Your task to perform on an android device: make emails show in primary in the gmail app Image 0: 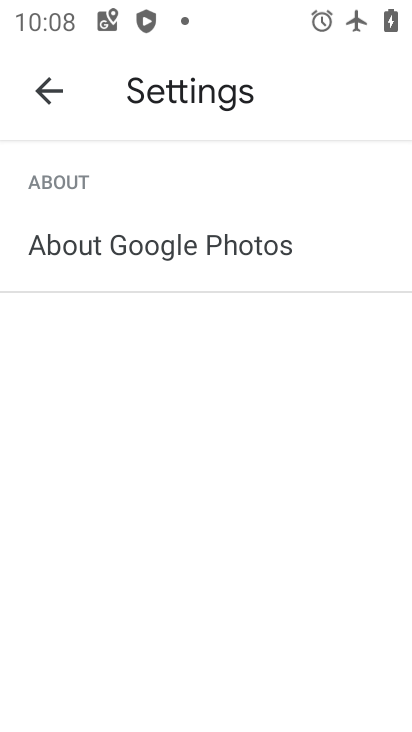
Step 0: press home button
Your task to perform on an android device: make emails show in primary in the gmail app Image 1: 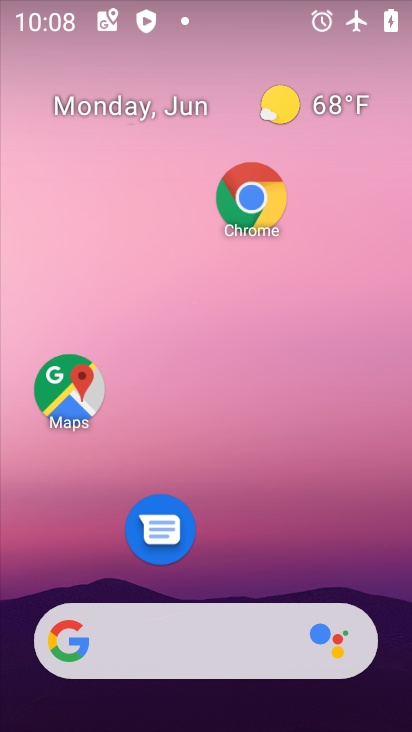
Step 1: drag from (231, 560) to (208, 140)
Your task to perform on an android device: make emails show in primary in the gmail app Image 2: 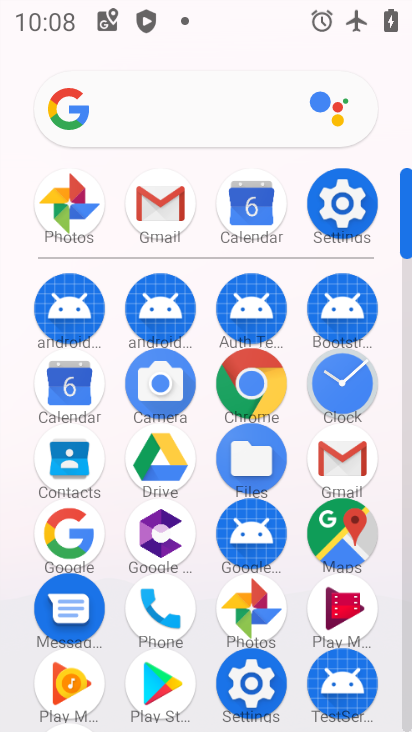
Step 2: click (164, 213)
Your task to perform on an android device: make emails show in primary in the gmail app Image 3: 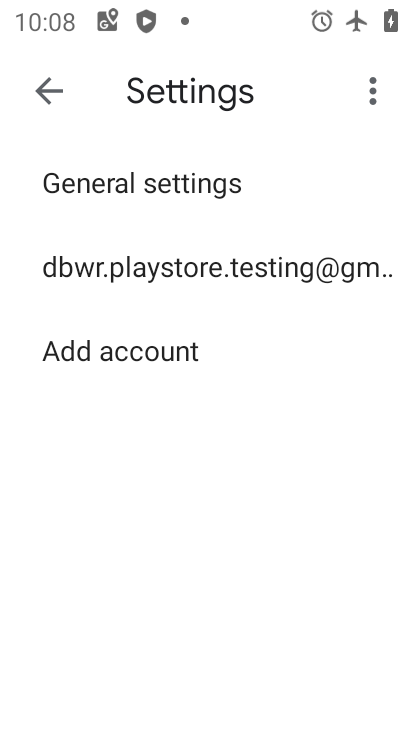
Step 3: click (187, 274)
Your task to perform on an android device: make emails show in primary in the gmail app Image 4: 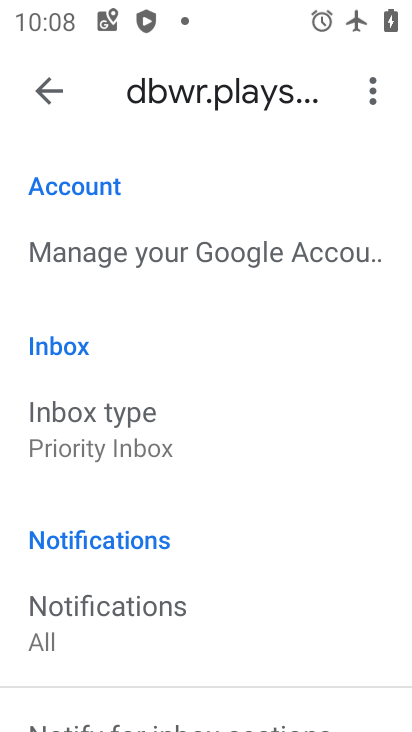
Step 4: click (131, 438)
Your task to perform on an android device: make emails show in primary in the gmail app Image 5: 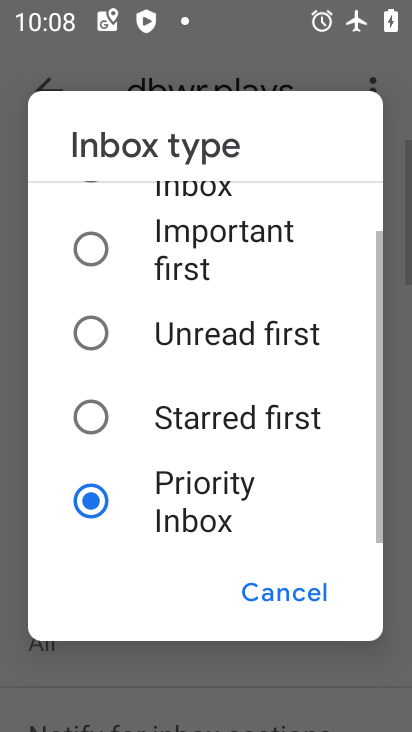
Step 5: drag from (178, 228) to (178, 505)
Your task to perform on an android device: make emails show in primary in the gmail app Image 6: 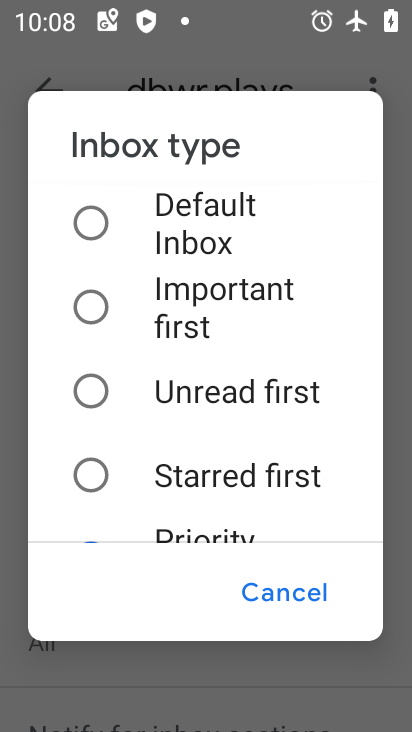
Step 6: click (88, 216)
Your task to perform on an android device: make emails show in primary in the gmail app Image 7: 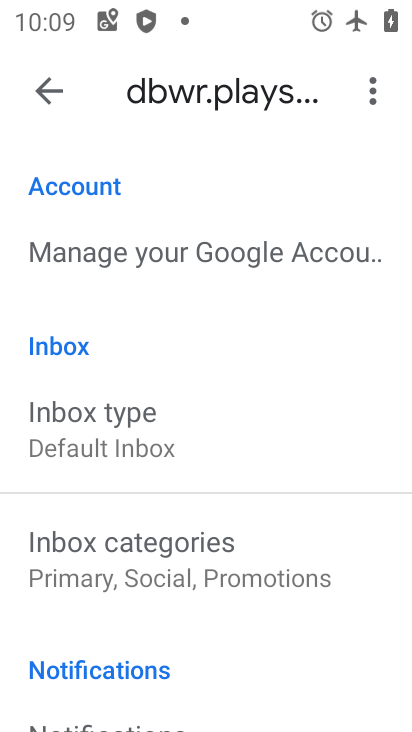
Step 7: task complete